Your task to perform on an android device: Open network settings Image 0: 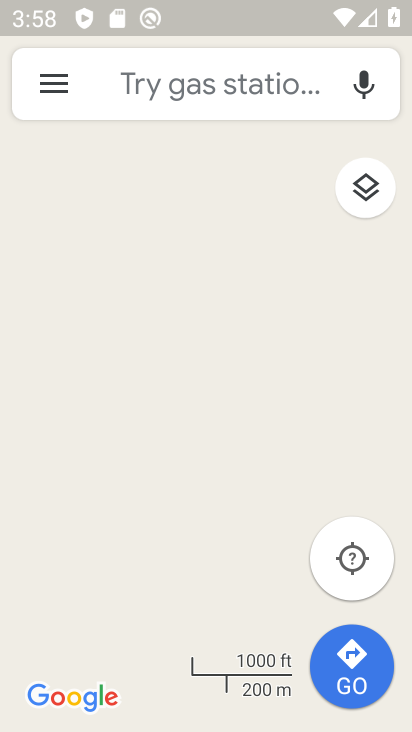
Step 0: drag from (343, 633) to (307, 68)
Your task to perform on an android device: Open network settings Image 1: 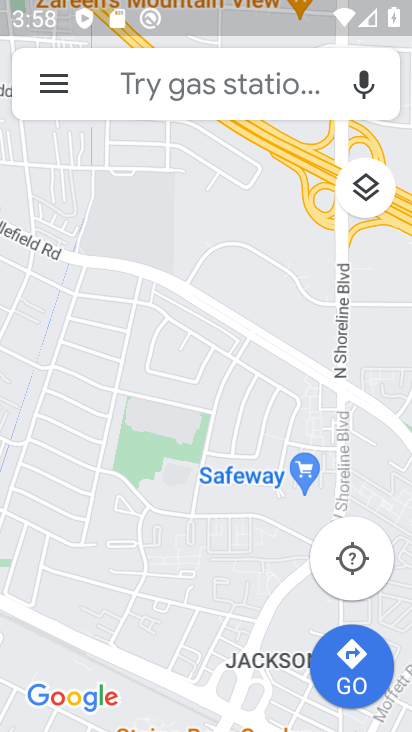
Step 1: click (53, 81)
Your task to perform on an android device: Open network settings Image 2: 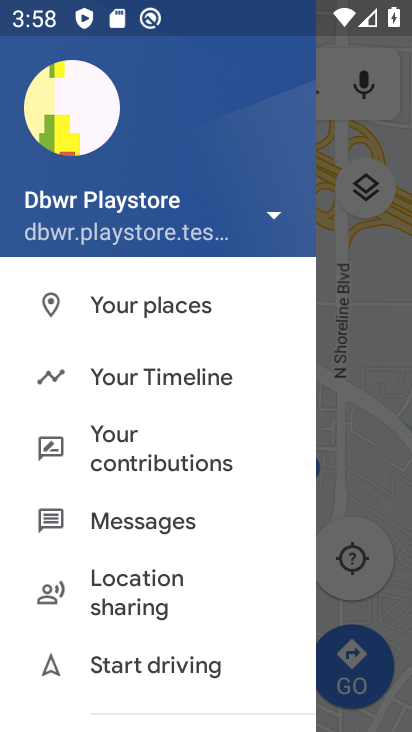
Step 2: click (366, 410)
Your task to perform on an android device: Open network settings Image 3: 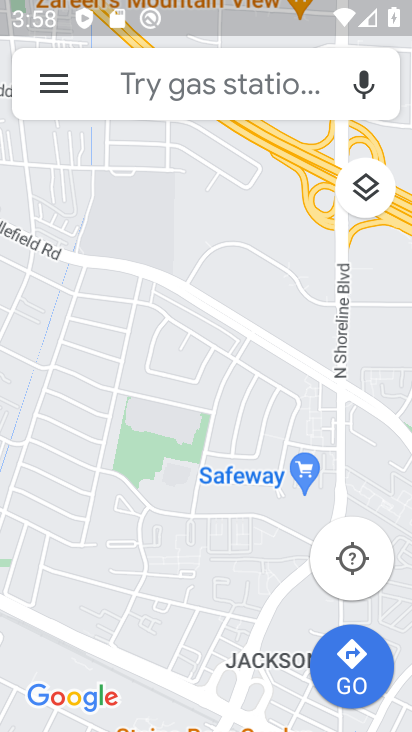
Step 3: press back button
Your task to perform on an android device: Open network settings Image 4: 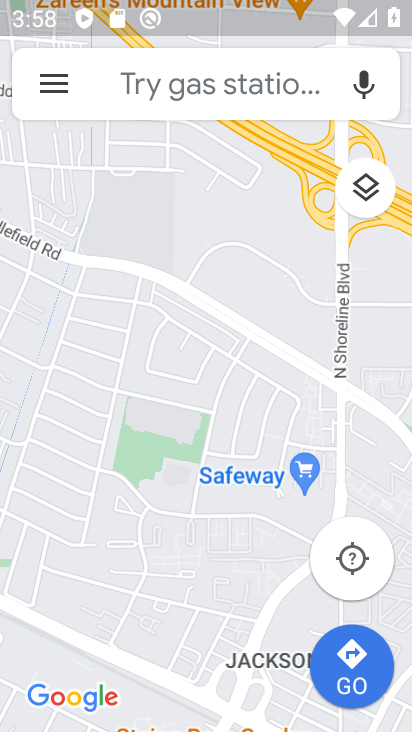
Step 4: press back button
Your task to perform on an android device: Open network settings Image 5: 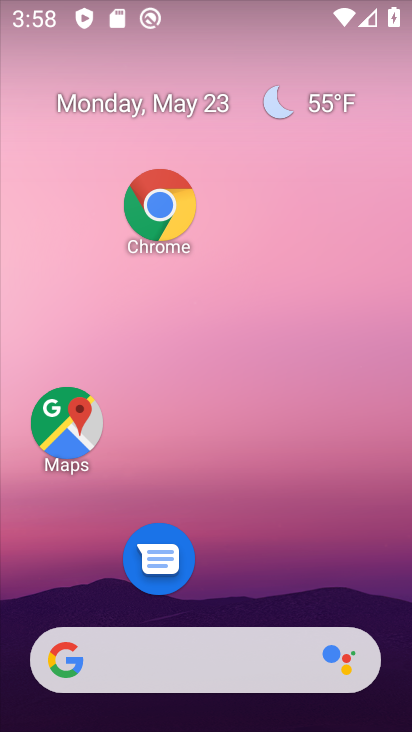
Step 5: drag from (248, 614) to (183, 28)
Your task to perform on an android device: Open network settings Image 6: 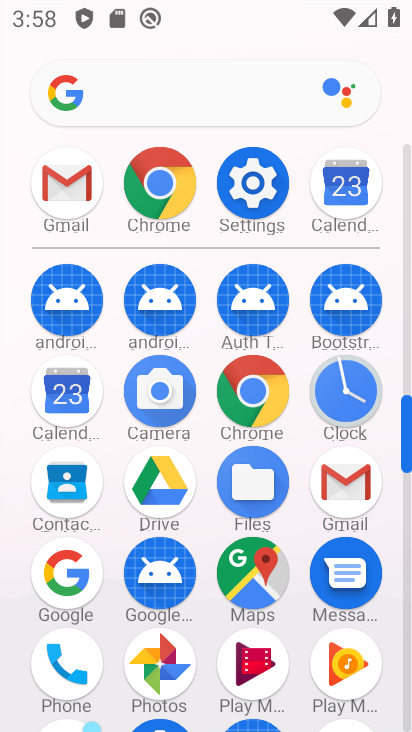
Step 6: drag from (328, 681) to (212, 117)
Your task to perform on an android device: Open network settings Image 7: 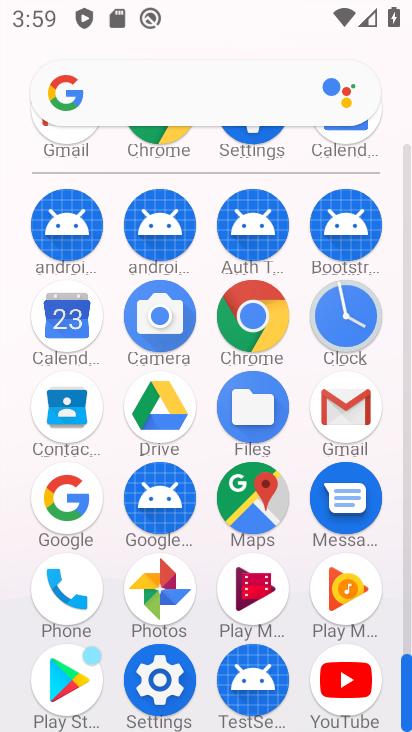
Step 7: click (260, 313)
Your task to perform on an android device: Open network settings Image 8: 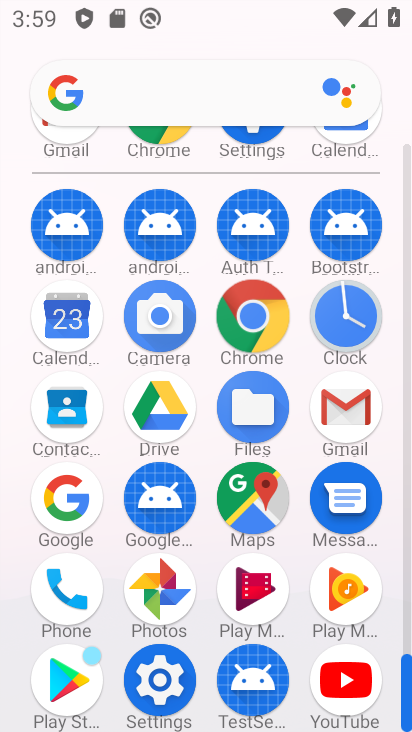
Step 8: click (260, 313)
Your task to perform on an android device: Open network settings Image 9: 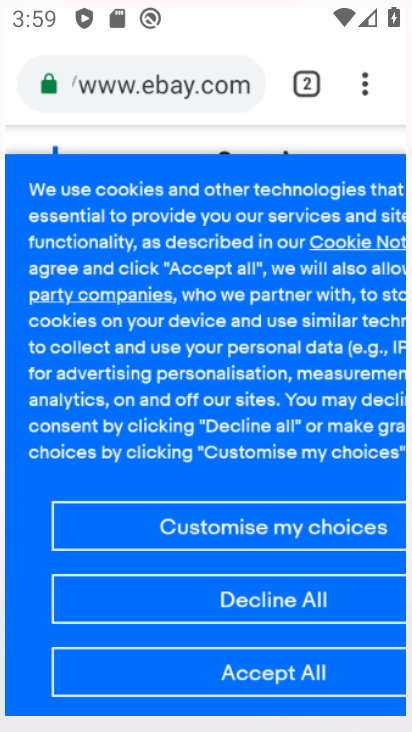
Step 9: click (260, 313)
Your task to perform on an android device: Open network settings Image 10: 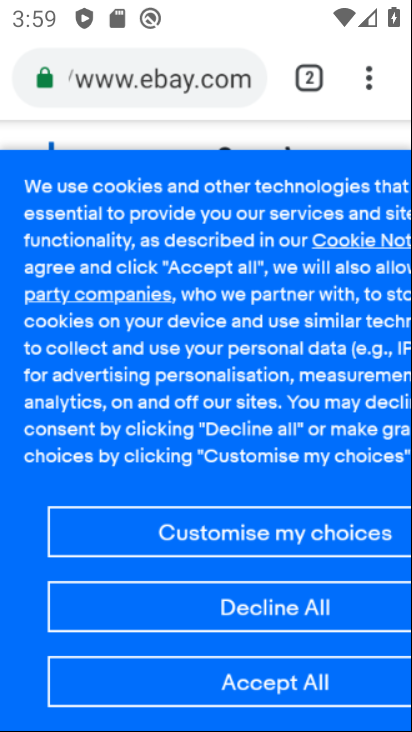
Step 10: click (260, 313)
Your task to perform on an android device: Open network settings Image 11: 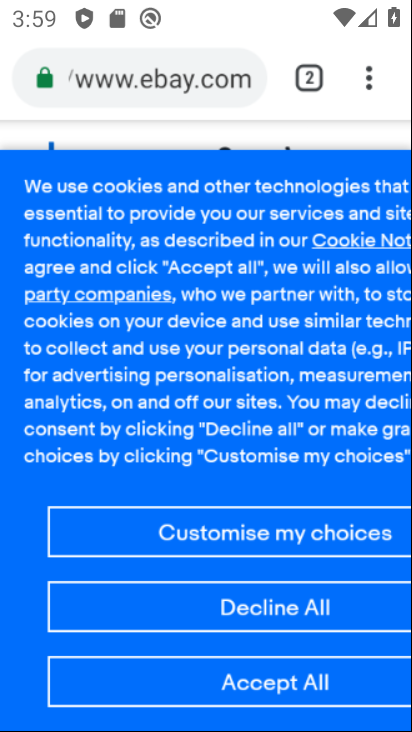
Step 11: click (260, 313)
Your task to perform on an android device: Open network settings Image 12: 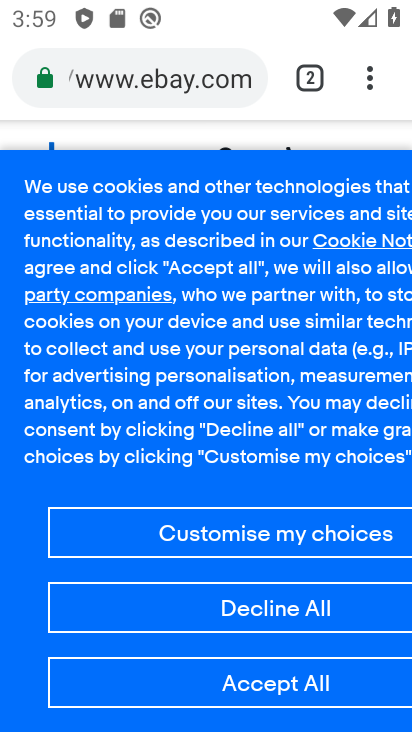
Step 12: click (372, 77)
Your task to perform on an android device: Open network settings Image 13: 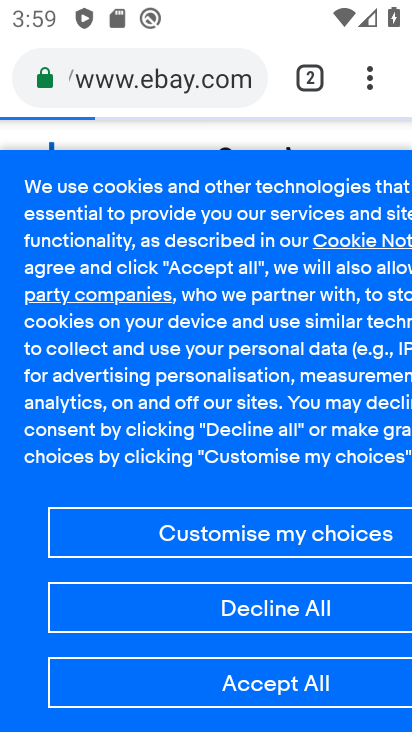
Step 13: press back button
Your task to perform on an android device: Open network settings Image 14: 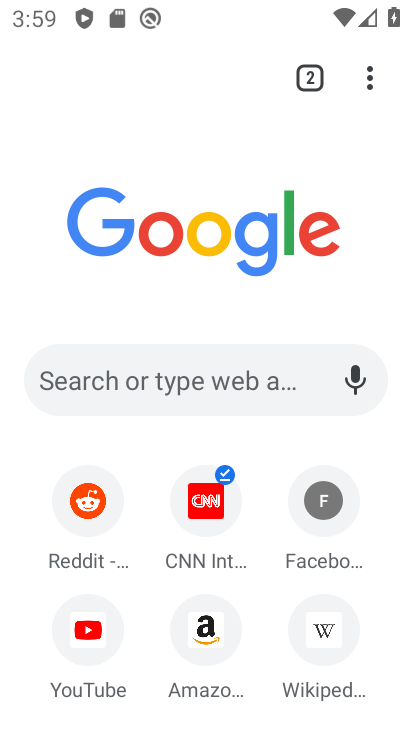
Step 14: press home button
Your task to perform on an android device: Open network settings Image 15: 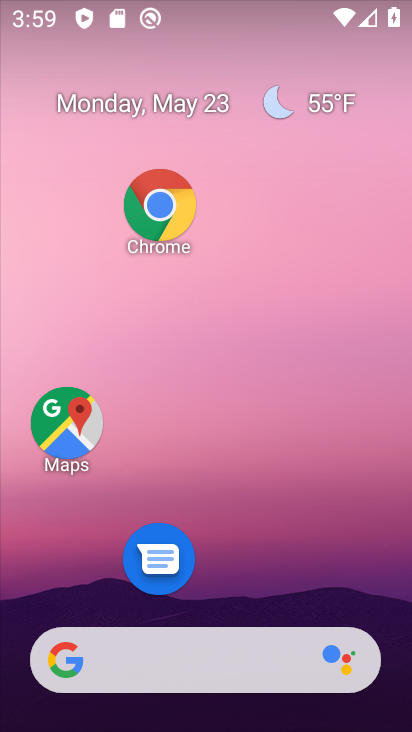
Step 15: drag from (271, 700) to (127, 46)
Your task to perform on an android device: Open network settings Image 16: 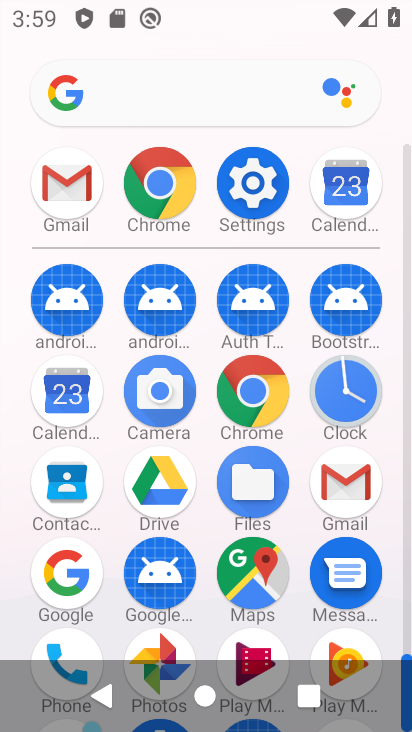
Step 16: click (249, 178)
Your task to perform on an android device: Open network settings Image 17: 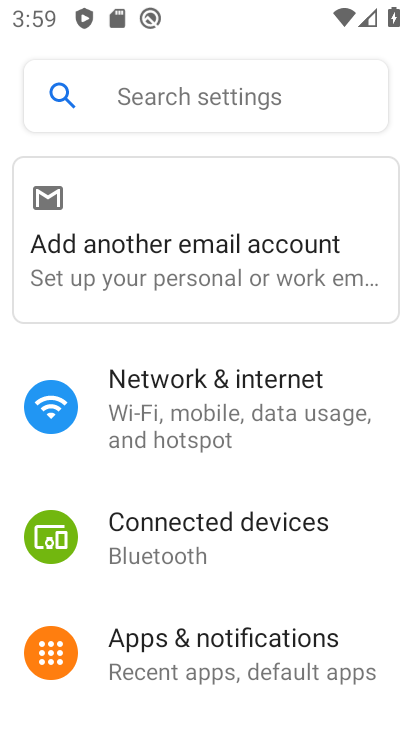
Step 17: click (167, 404)
Your task to perform on an android device: Open network settings Image 18: 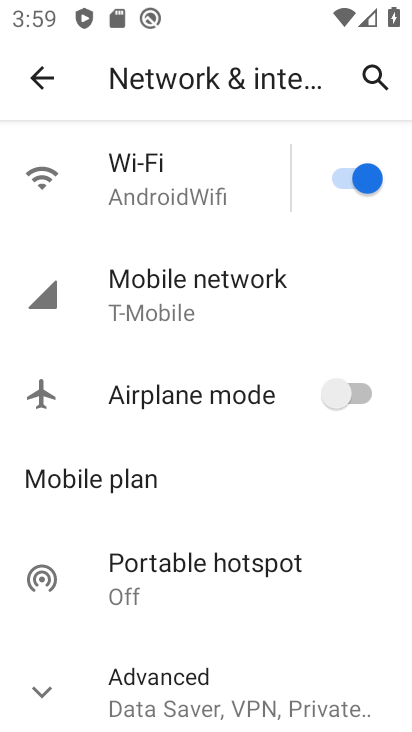
Step 18: task complete